Your task to perform on an android device: turn pop-ups off in chrome Image 0: 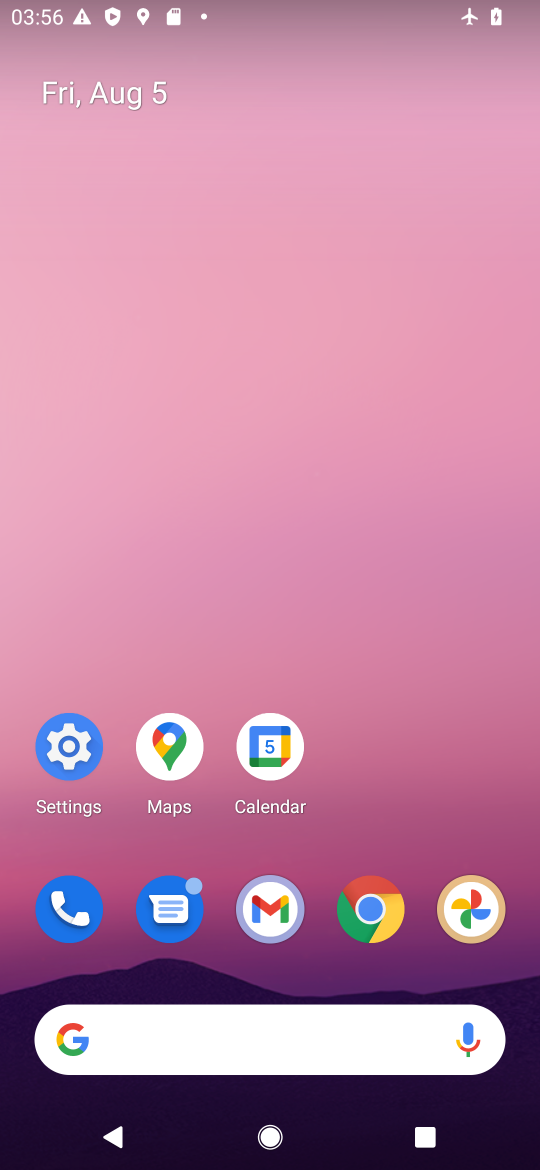
Step 0: click (368, 912)
Your task to perform on an android device: turn pop-ups off in chrome Image 1: 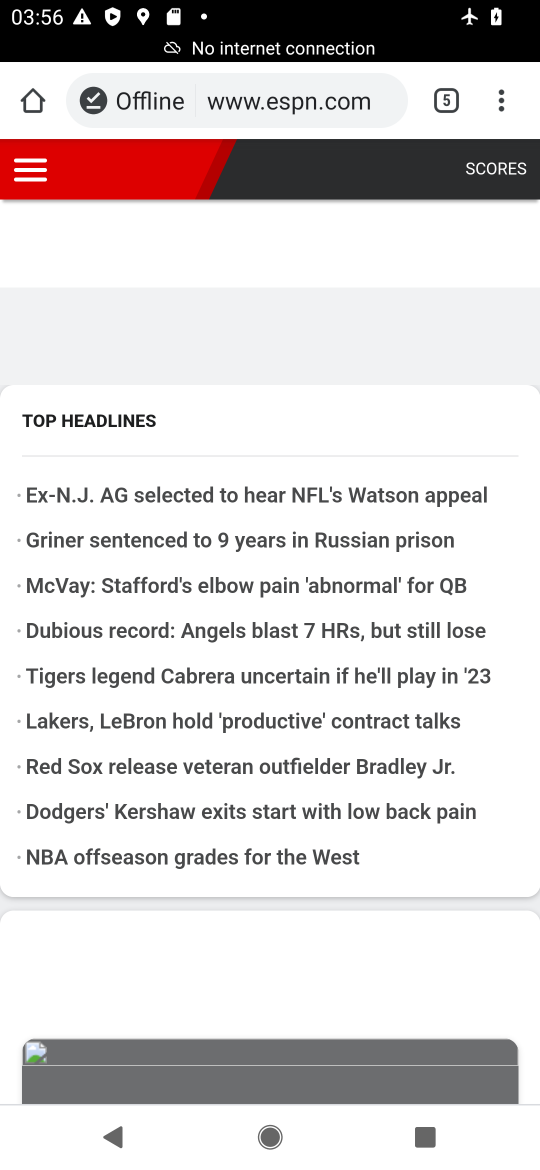
Step 1: click (507, 98)
Your task to perform on an android device: turn pop-ups off in chrome Image 2: 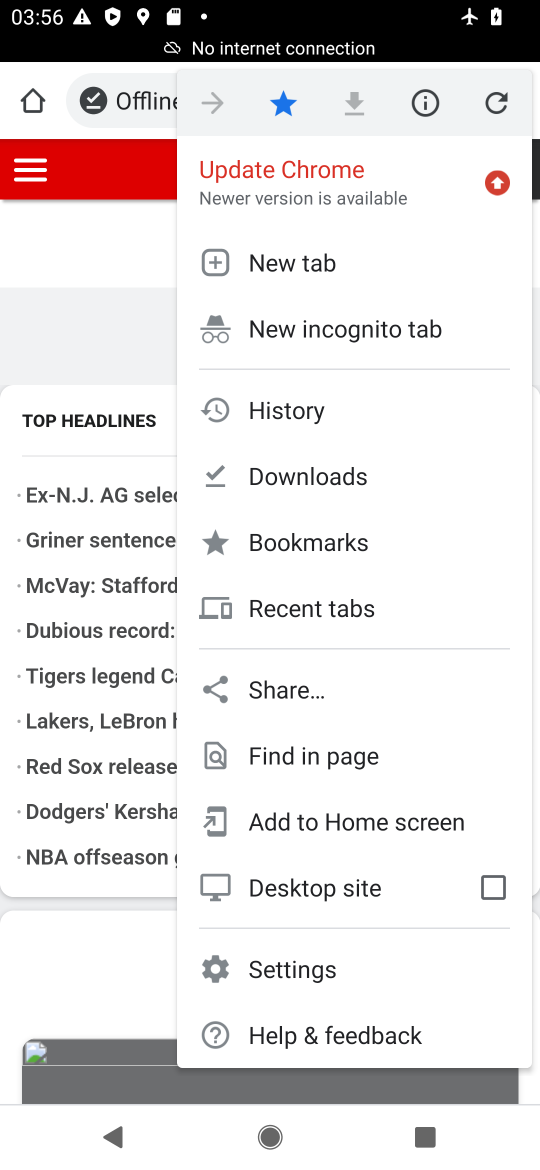
Step 2: click (299, 967)
Your task to perform on an android device: turn pop-ups off in chrome Image 3: 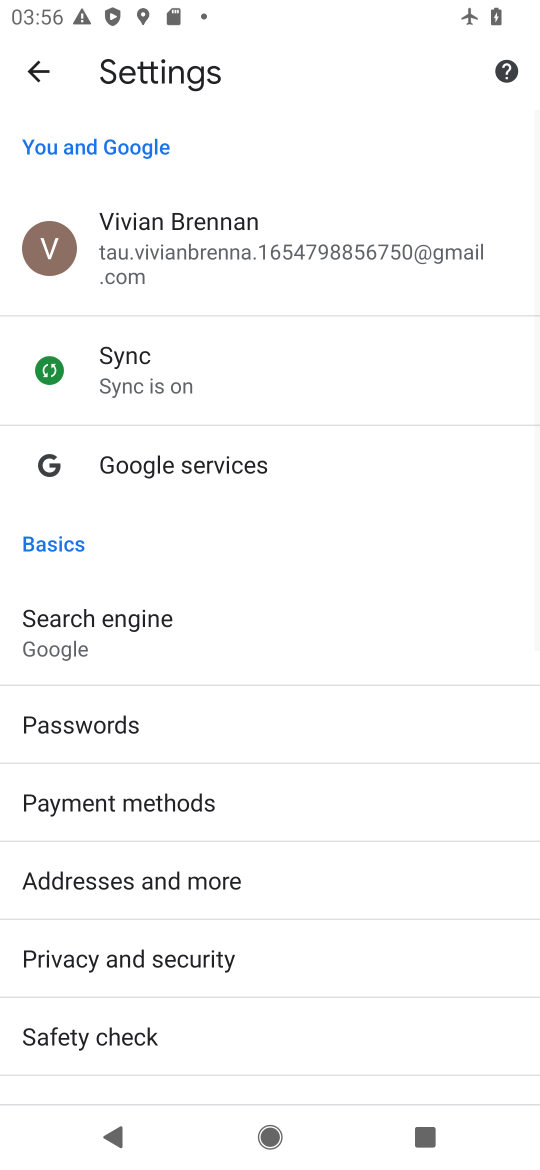
Step 3: drag from (379, 884) to (379, 350)
Your task to perform on an android device: turn pop-ups off in chrome Image 4: 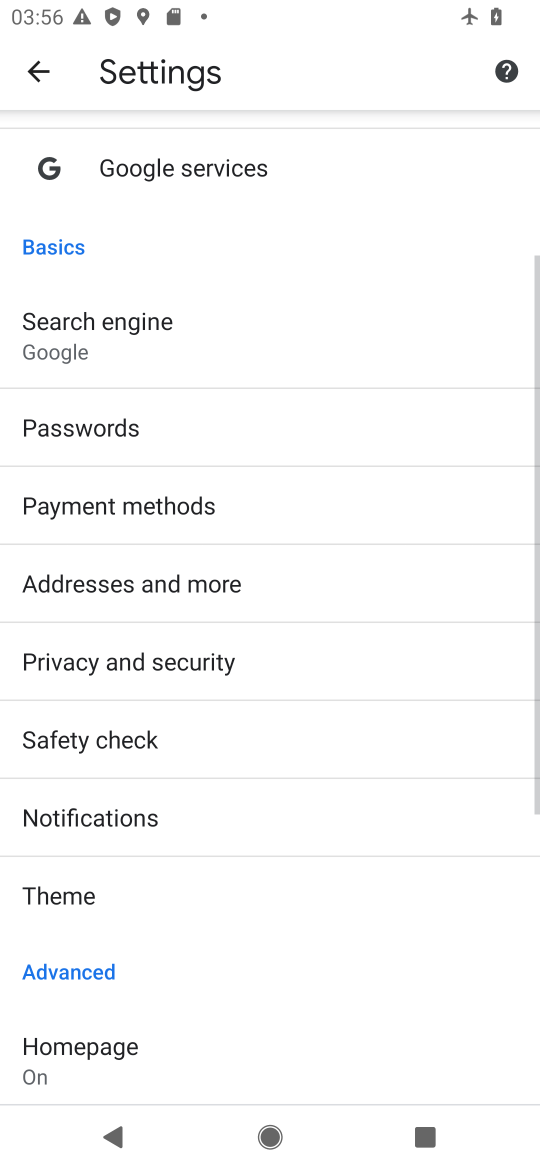
Step 4: drag from (245, 916) to (210, 378)
Your task to perform on an android device: turn pop-ups off in chrome Image 5: 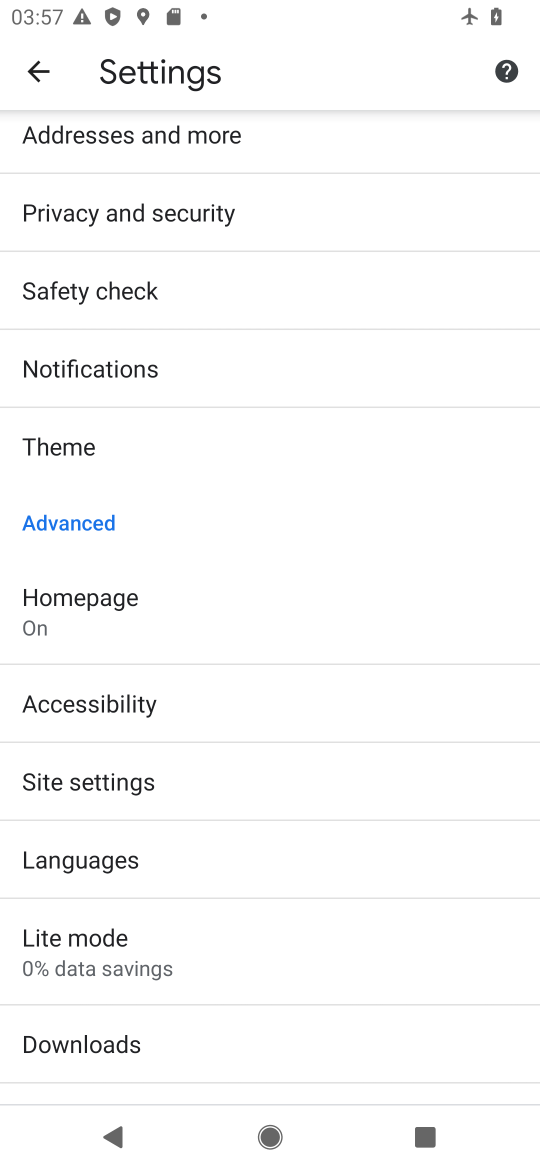
Step 5: click (94, 783)
Your task to perform on an android device: turn pop-ups off in chrome Image 6: 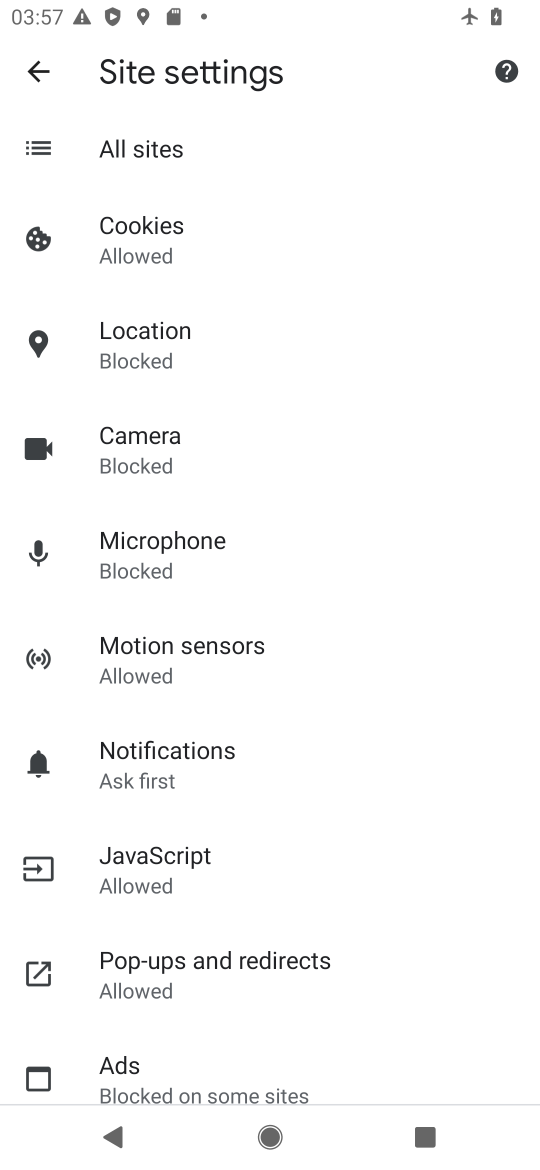
Step 6: click (191, 963)
Your task to perform on an android device: turn pop-ups off in chrome Image 7: 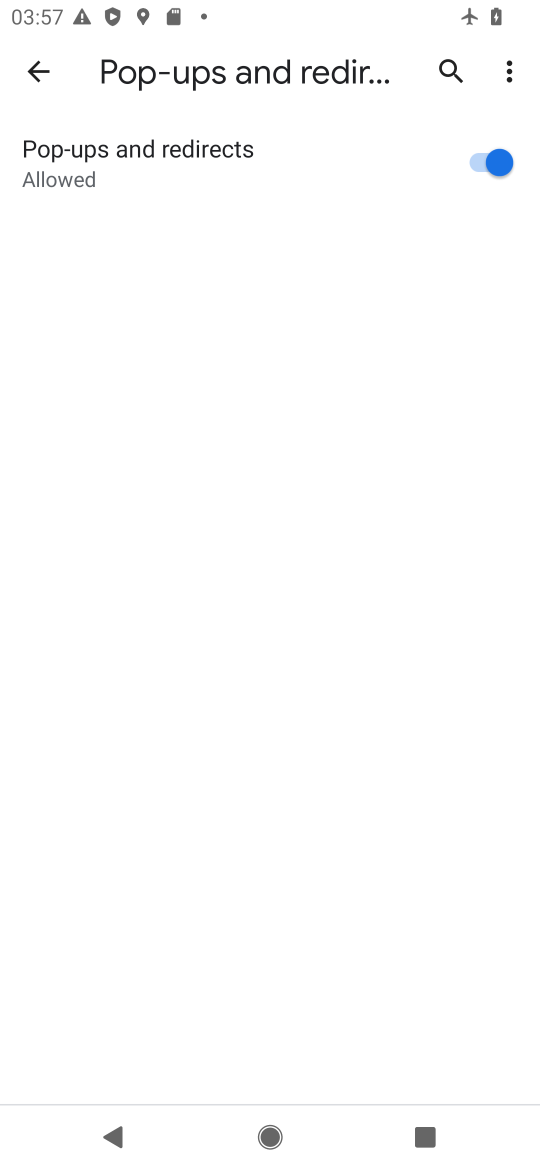
Step 7: click (494, 168)
Your task to perform on an android device: turn pop-ups off in chrome Image 8: 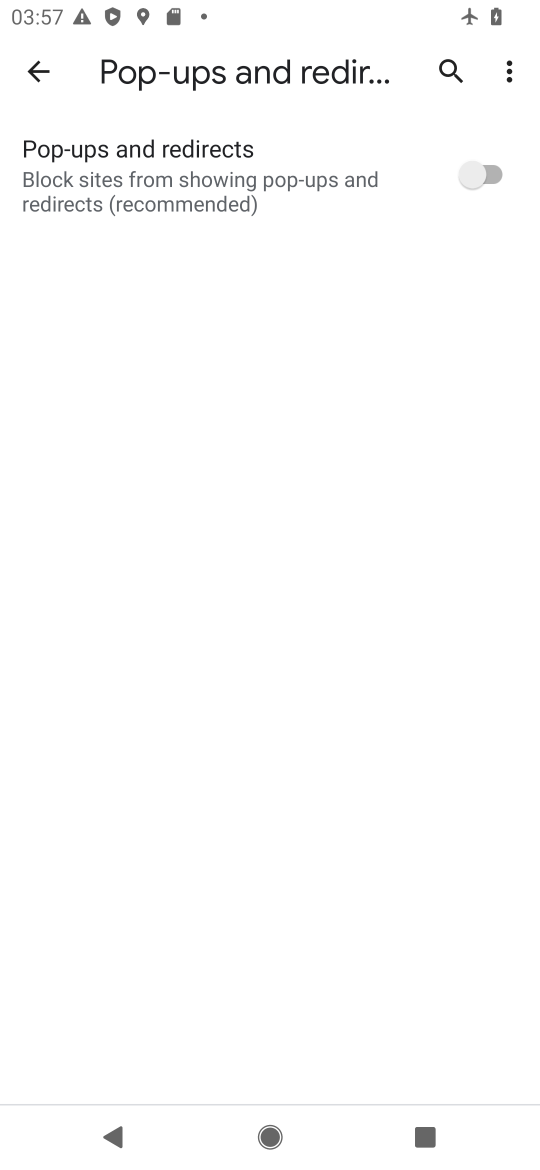
Step 8: task complete